Your task to perform on an android device: Open display settings Image 0: 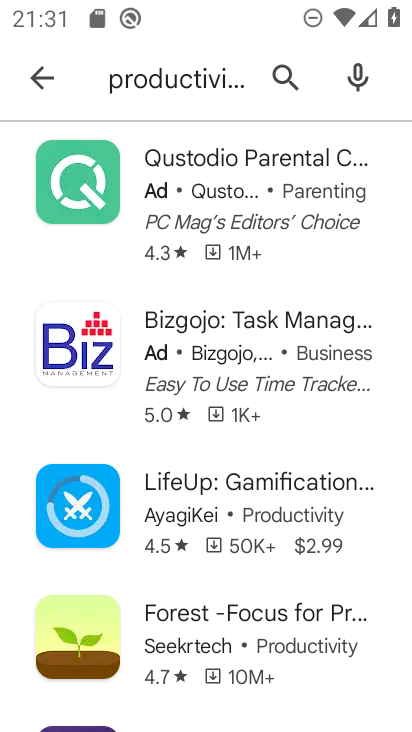
Step 0: press home button
Your task to perform on an android device: Open display settings Image 1: 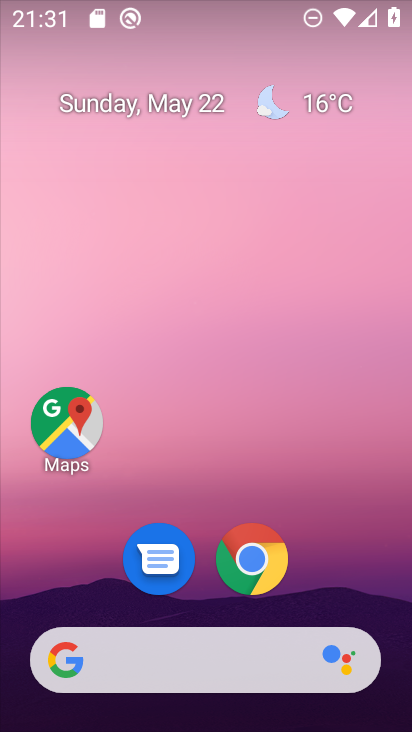
Step 1: drag from (276, 691) to (311, 207)
Your task to perform on an android device: Open display settings Image 2: 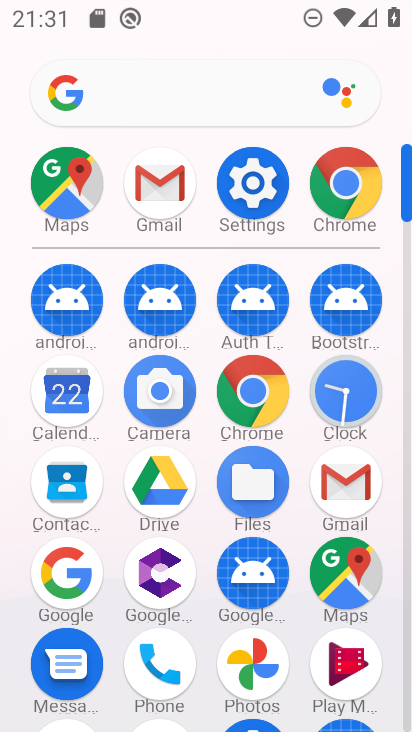
Step 2: click (239, 196)
Your task to perform on an android device: Open display settings Image 3: 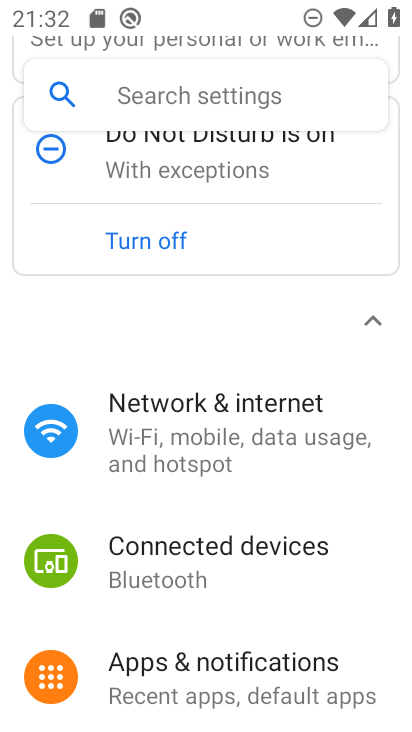
Step 3: drag from (244, 513) to (287, 270)
Your task to perform on an android device: Open display settings Image 4: 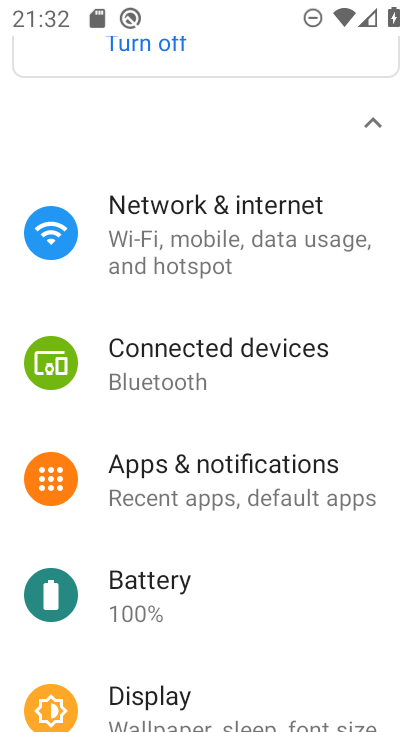
Step 4: click (234, 601)
Your task to perform on an android device: Open display settings Image 5: 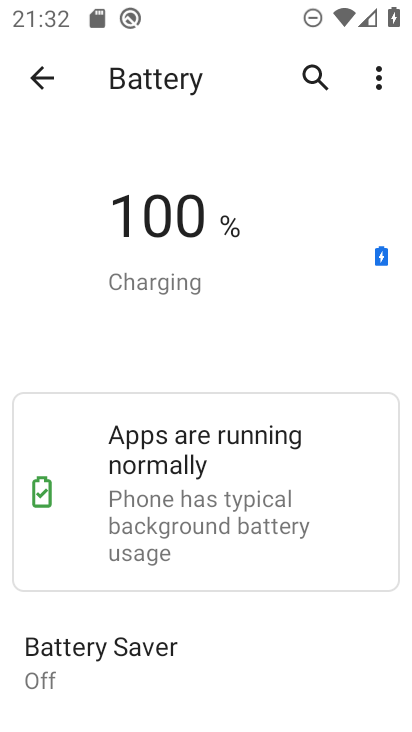
Step 5: task complete